Your task to perform on an android device: Do I have any events today? Image 0: 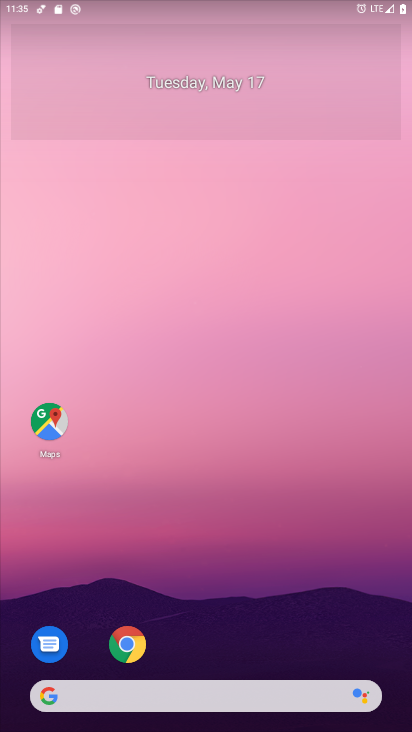
Step 0: click (45, 417)
Your task to perform on an android device: Do I have any events today? Image 1: 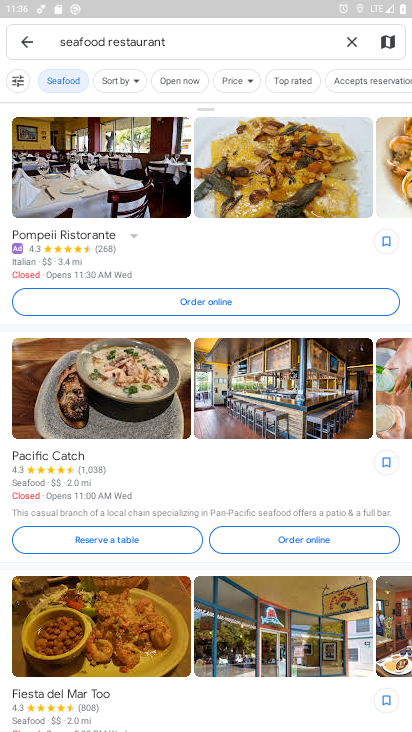
Step 1: press home button
Your task to perform on an android device: Do I have any events today? Image 2: 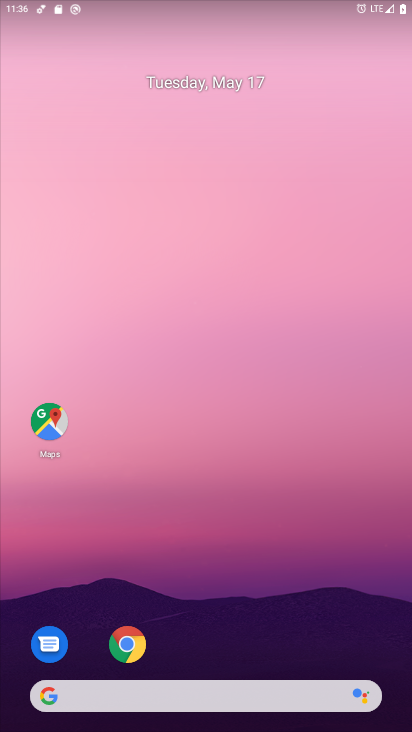
Step 2: drag from (217, 653) to (258, 270)
Your task to perform on an android device: Do I have any events today? Image 3: 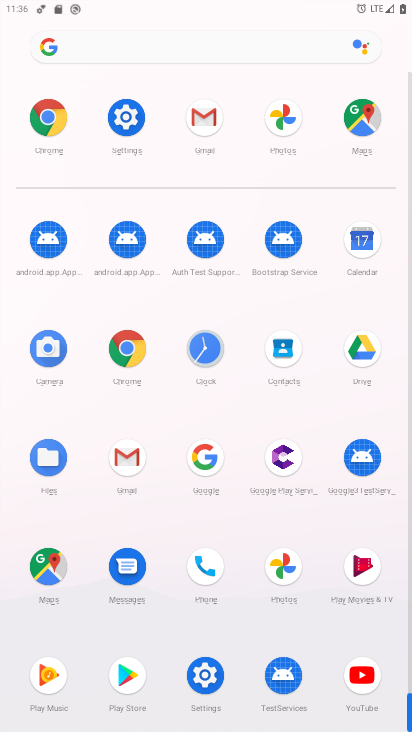
Step 3: click (360, 237)
Your task to perform on an android device: Do I have any events today? Image 4: 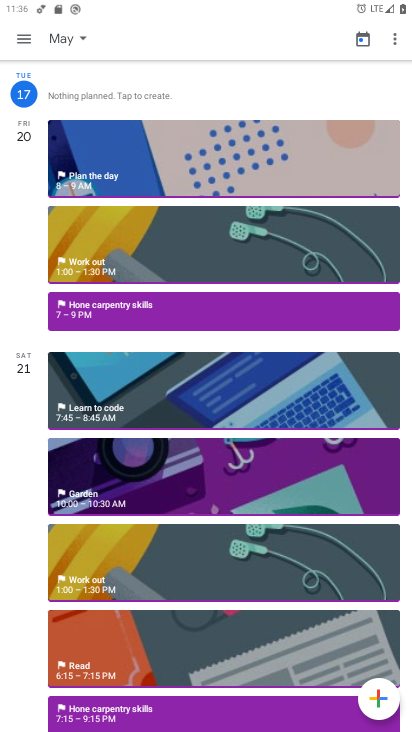
Step 4: drag from (24, 164) to (20, 597)
Your task to perform on an android device: Do I have any events today? Image 5: 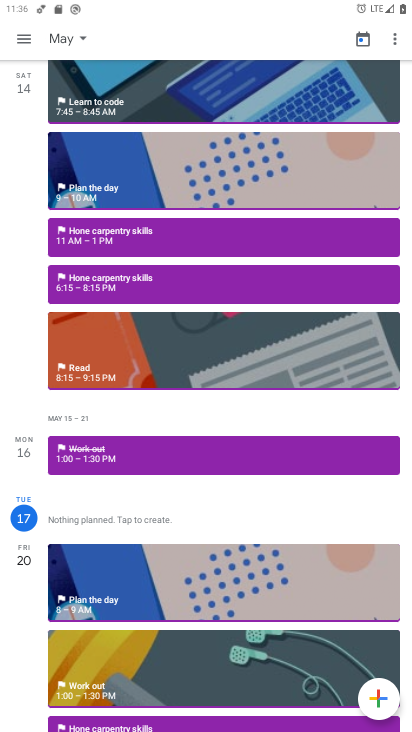
Step 5: click (26, 523)
Your task to perform on an android device: Do I have any events today? Image 6: 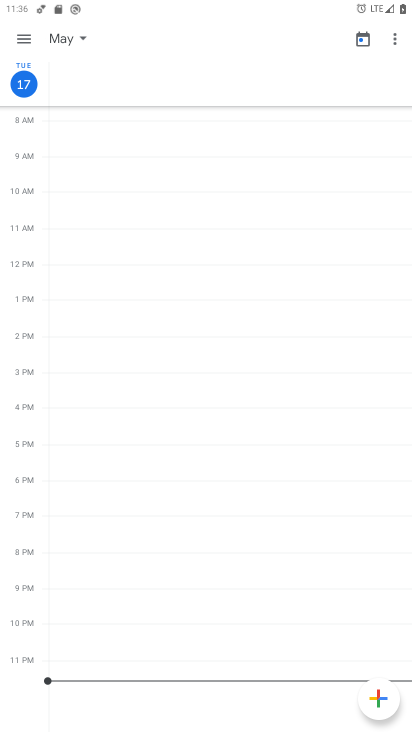
Step 6: task complete